Your task to perform on an android device: turn on location history Image 0: 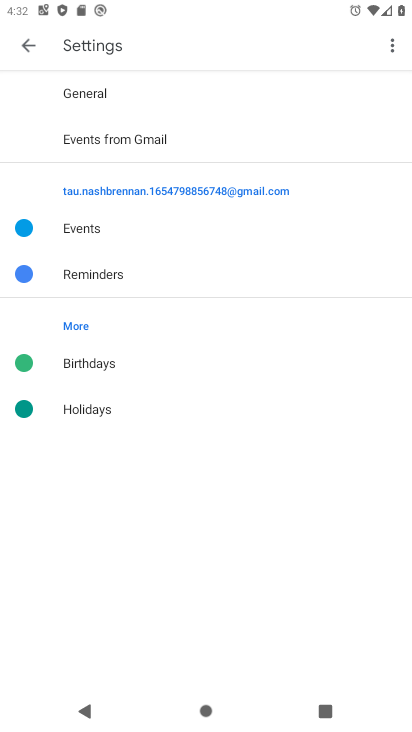
Step 0: press home button
Your task to perform on an android device: turn on location history Image 1: 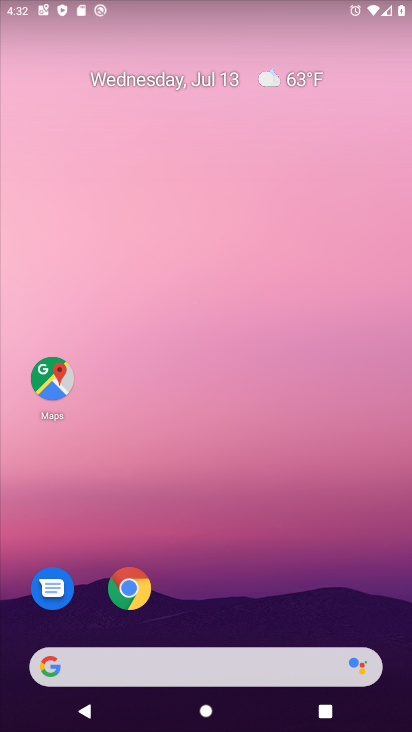
Step 1: drag from (207, 666) to (261, 166)
Your task to perform on an android device: turn on location history Image 2: 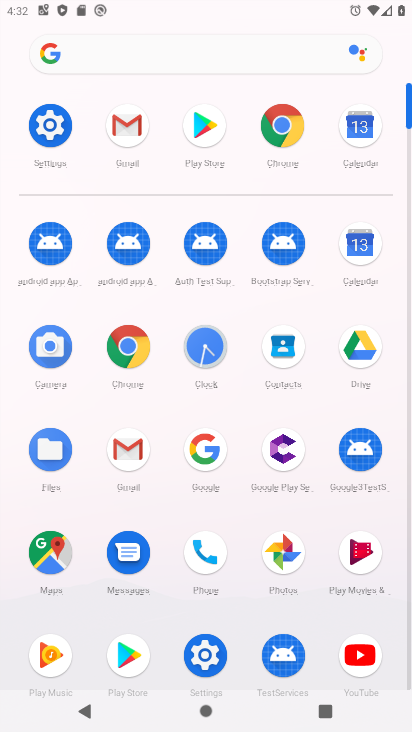
Step 2: click (203, 653)
Your task to perform on an android device: turn on location history Image 3: 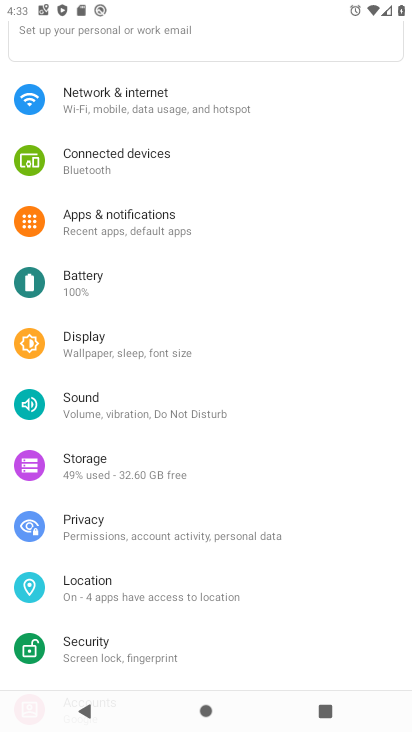
Step 3: click (180, 594)
Your task to perform on an android device: turn on location history Image 4: 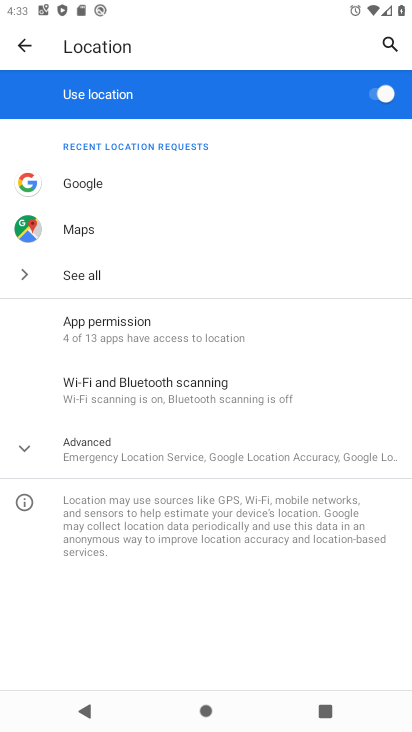
Step 4: click (207, 453)
Your task to perform on an android device: turn on location history Image 5: 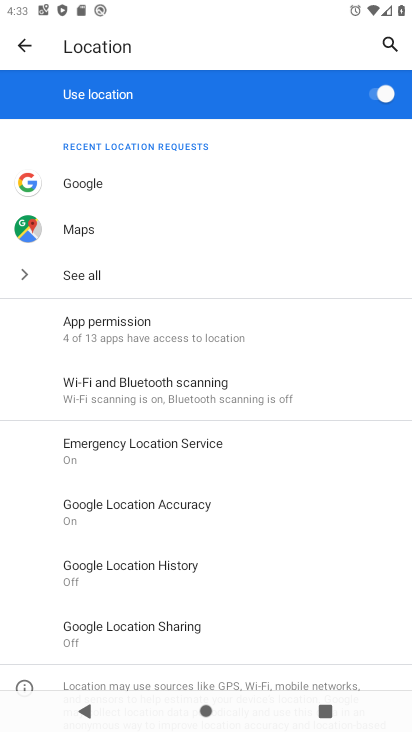
Step 5: click (189, 566)
Your task to perform on an android device: turn on location history Image 6: 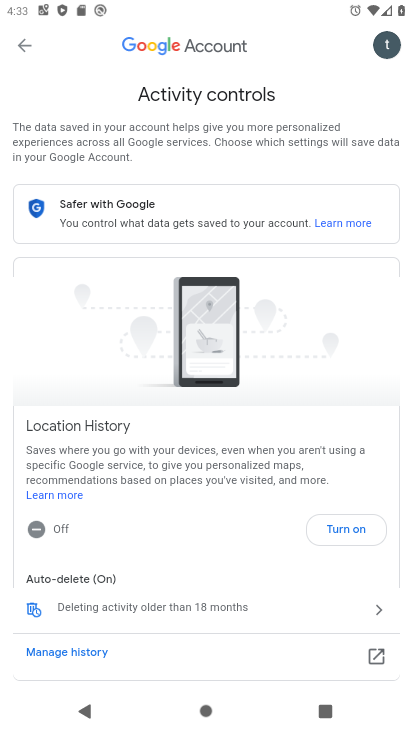
Step 6: drag from (382, 530) to (336, 525)
Your task to perform on an android device: turn on location history Image 7: 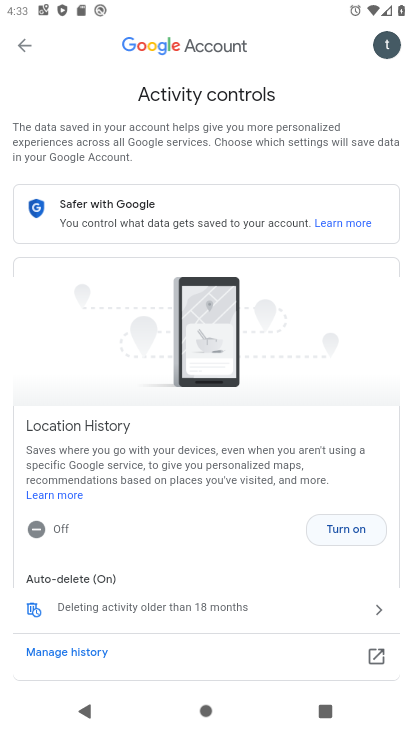
Step 7: click (357, 532)
Your task to perform on an android device: turn on location history Image 8: 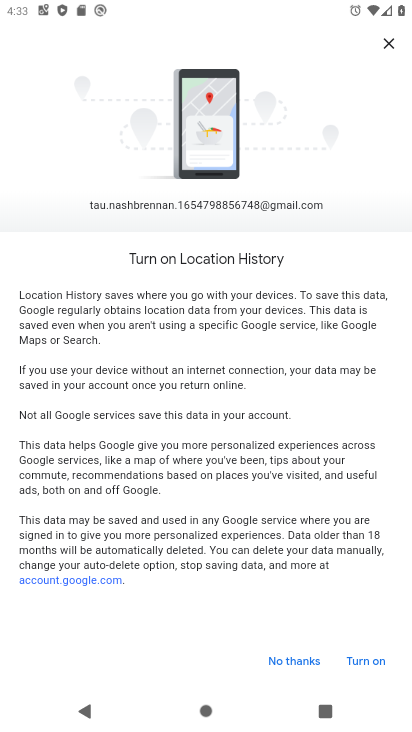
Step 8: click (360, 661)
Your task to perform on an android device: turn on location history Image 9: 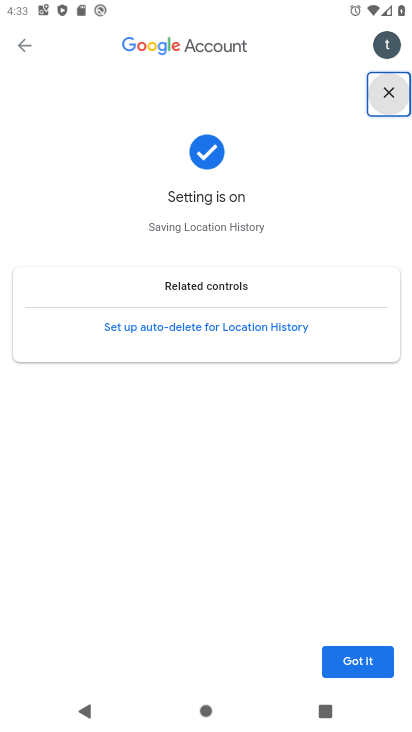
Step 9: click (371, 659)
Your task to perform on an android device: turn on location history Image 10: 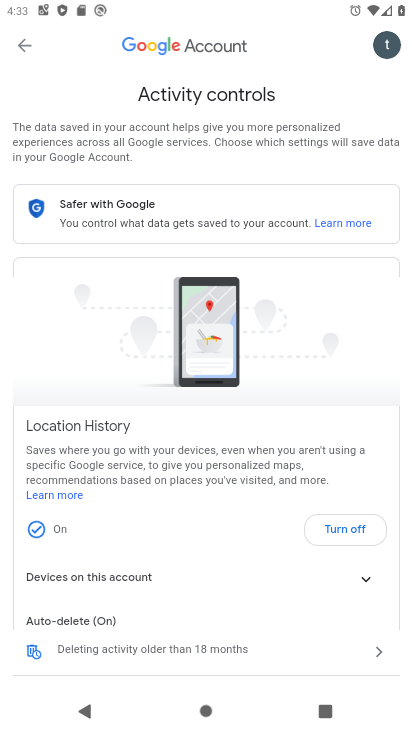
Step 10: click (371, 659)
Your task to perform on an android device: turn on location history Image 11: 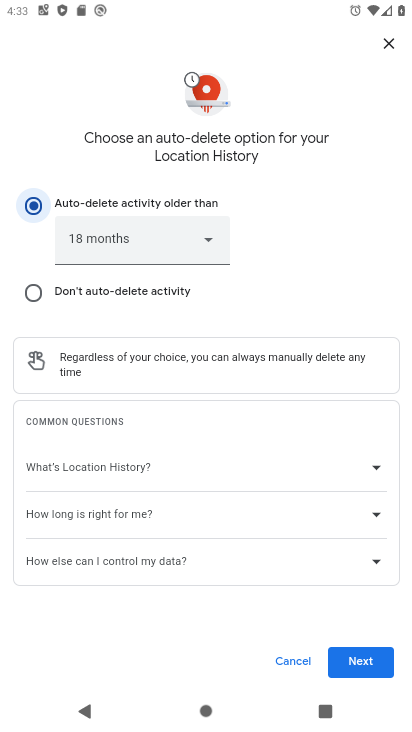
Step 11: click (389, 38)
Your task to perform on an android device: turn on location history Image 12: 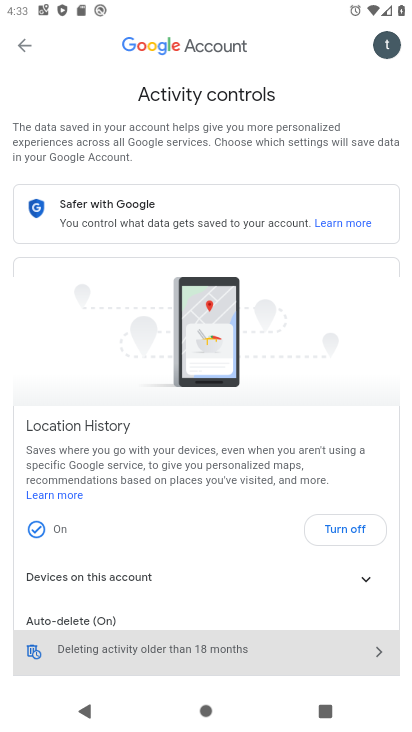
Step 12: task complete